Your task to perform on an android device: toggle data saver in the chrome app Image 0: 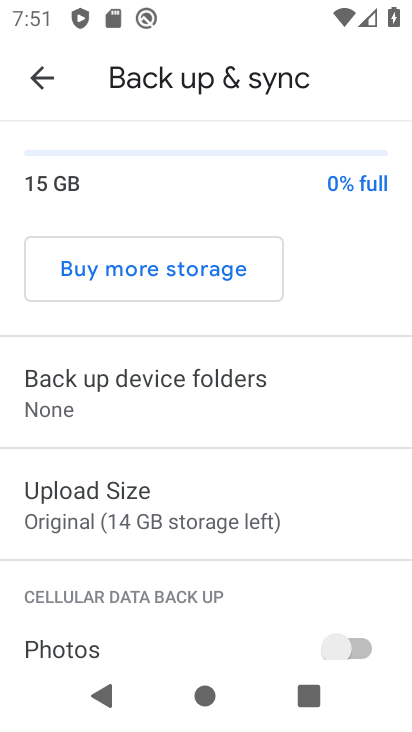
Step 0: press home button
Your task to perform on an android device: toggle data saver in the chrome app Image 1: 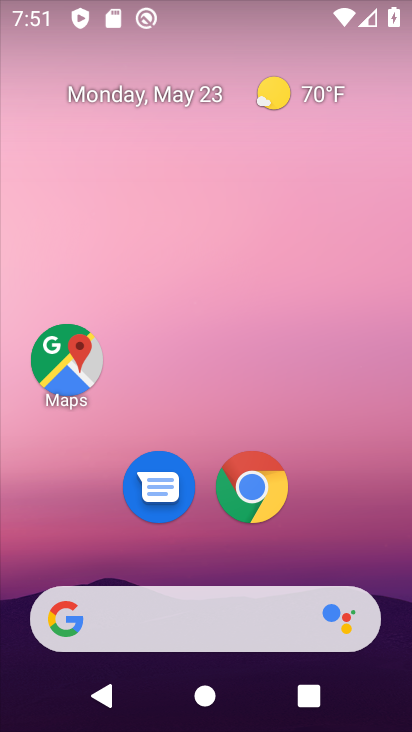
Step 1: click (245, 493)
Your task to perform on an android device: toggle data saver in the chrome app Image 2: 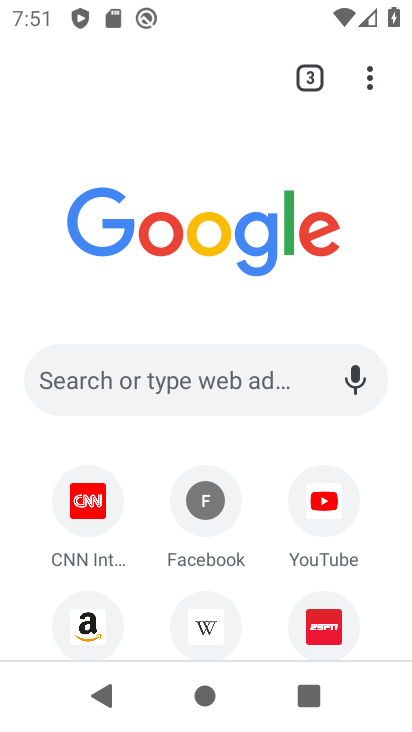
Step 2: click (370, 80)
Your task to perform on an android device: toggle data saver in the chrome app Image 3: 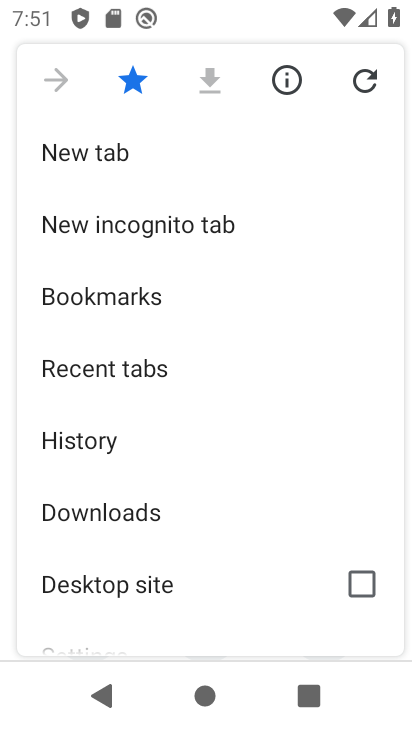
Step 3: drag from (127, 590) to (120, 476)
Your task to perform on an android device: toggle data saver in the chrome app Image 4: 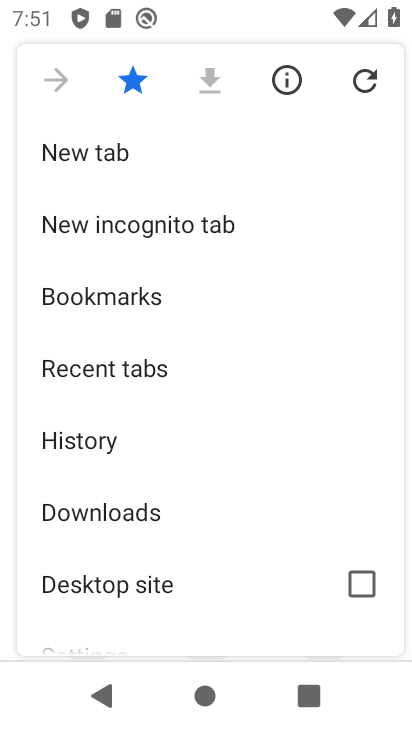
Step 4: drag from (97, 574) to (127, 276)
Your task to perform on an android device: toggle data saver in the chrome app Image 5: 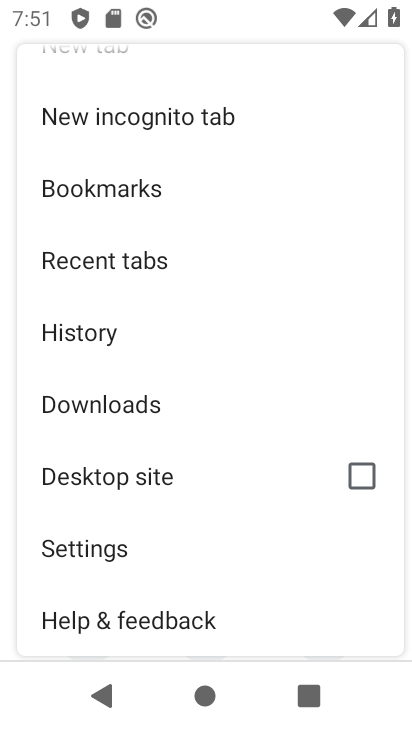
Step 5: click (85, 546)
Your task to perform on an android device: toggle data saver in the chrome app Image 6: 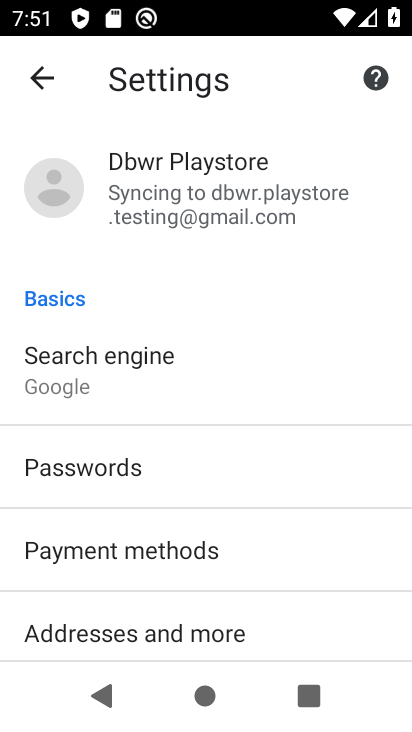
Step 6: drag from (134, 591) to (160, 241)
Your task to perform on an android device: toggle data saver in the chrome app Image 7: 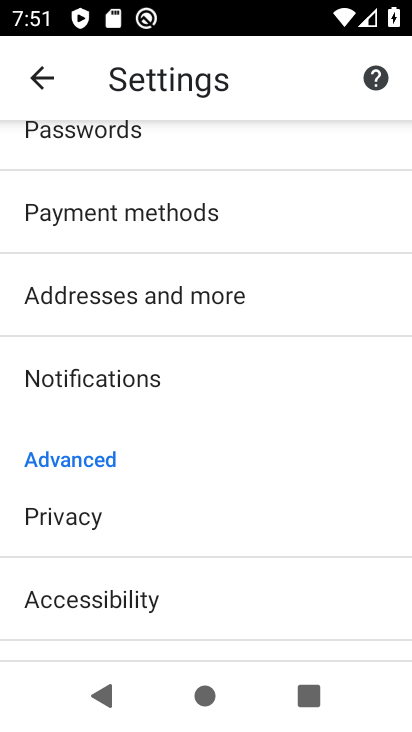
Step 7: drag from (120, 589) to (121, 215)
Your task to perform on an android device: toggle data saver in the chrome app Image 8: 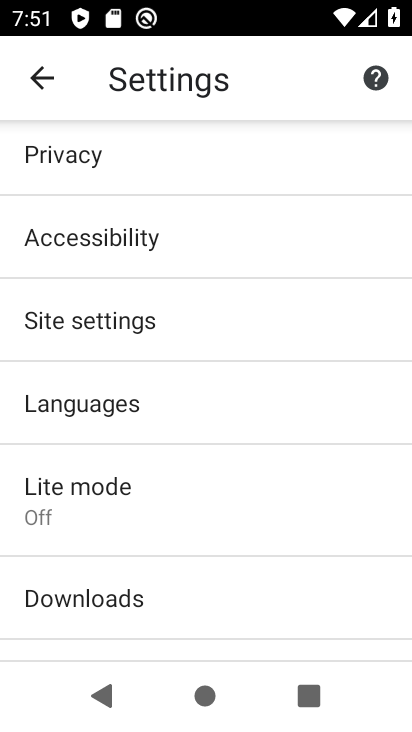
Step 8: click (76, 498)
Your task to perform on an android device: toggle data saver in the chrome app Image 9: 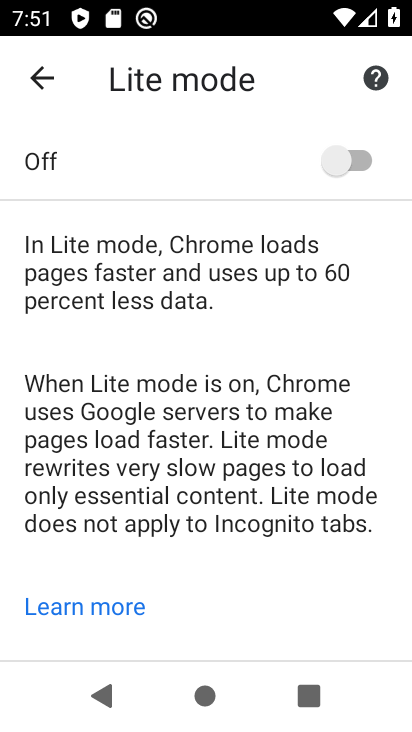
Step 9: click (349, 163)
Your task to perform on an android device: toggle data saver in the chrome app Image 10: 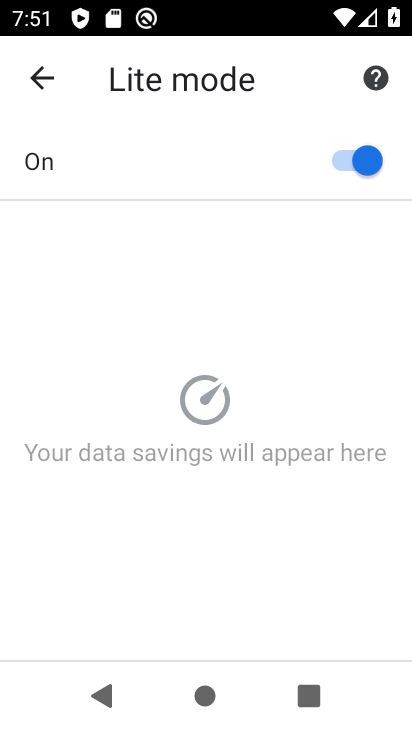
Step 10: task complete